Your task to perform on an android device: change notification settings in the gmail app Image 0: 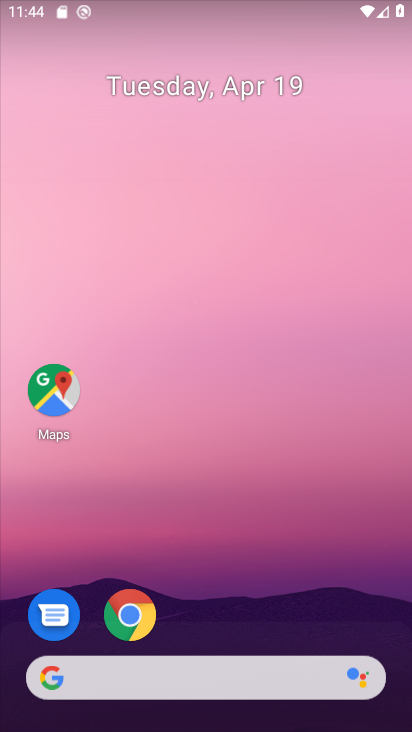
Step 0: drag from (390, 561) to (411, 34)
Your task to perform on an android device: change notification settings in the gmail app Image 1: 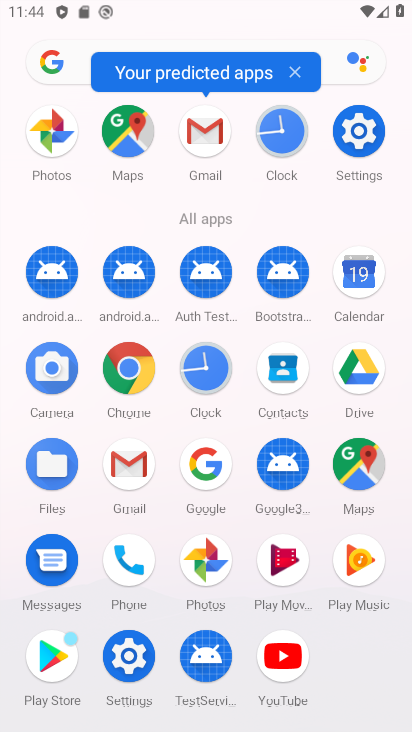
Step 1: click (211, 141)
Your task to perform on an android device: change notification settings in the gmail app Image 2: 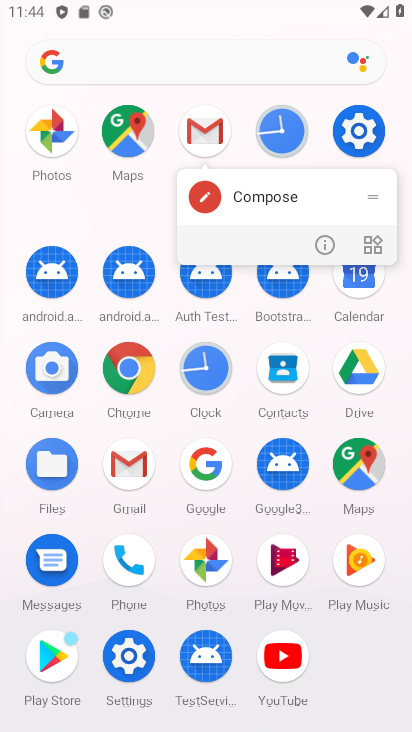
Step 2: click (203, 137)
Your task to perform on an android device: change notification settings in the gmail app Image 3: 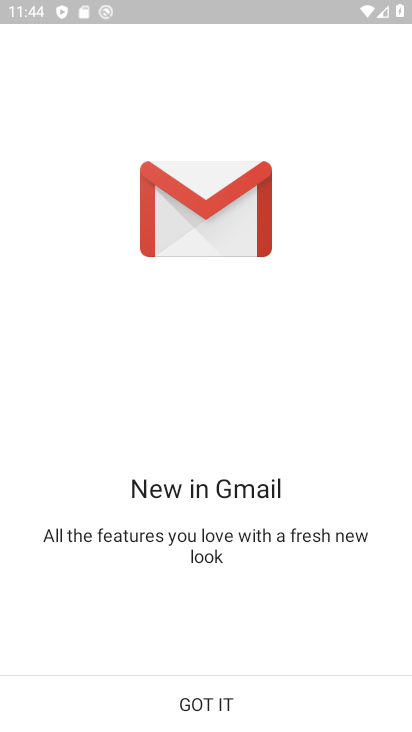
Step 3: click (202, 701)
Your task to perform on an android device: change notification settings in the gmail app Image 4: 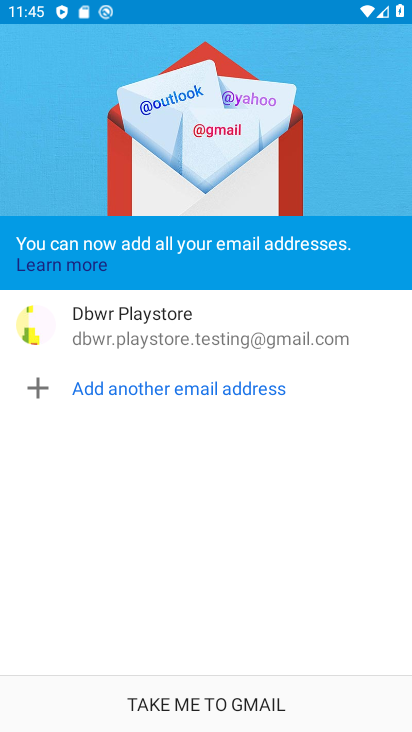
Step 4: click (204, 705)
Your task to perform on an android device: change notification settings in the gmail app Image 5: 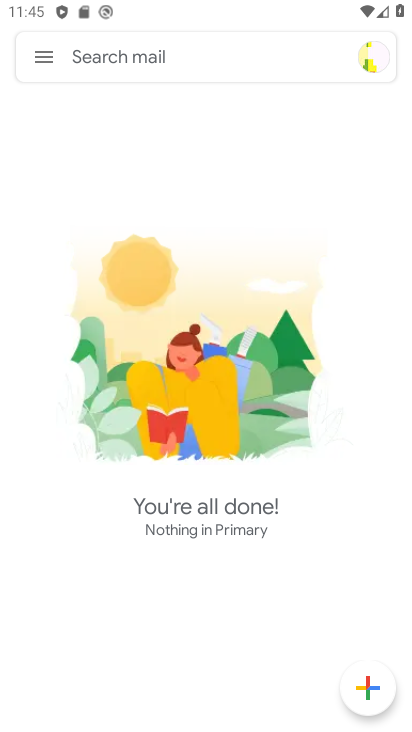
Step 5: click (46, 56)
Your task to perform on an android device: change notification settings in the gmail app Image 6: 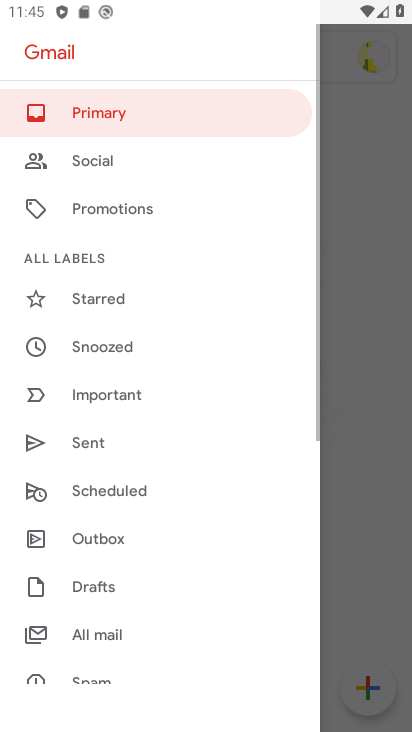
Step 6: drag from (194, 479) to (189, 114)
Your task to perform on an android device: change notification settings in the gmail app Image 7: 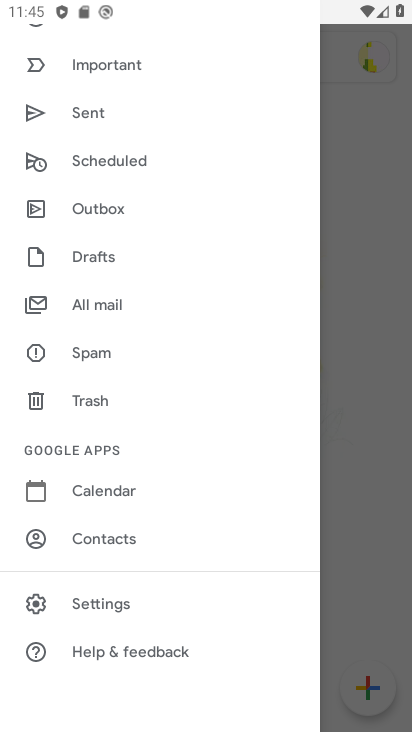
Step 7: click (96, 604)
Your task to perform on an android device: change notification settings in the gmail app Image 8: 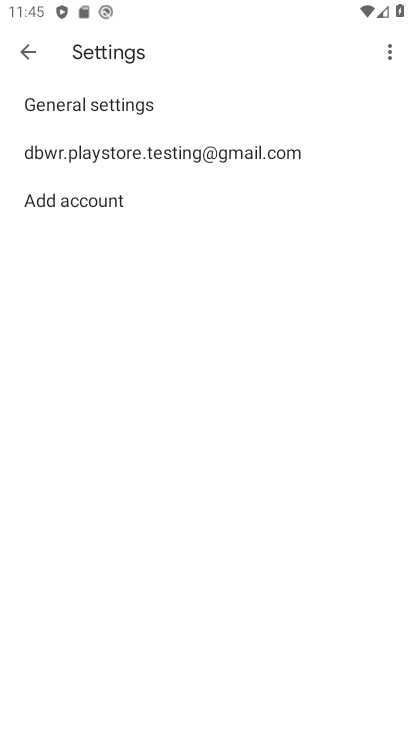
Step 8: click (119, 105)
Your task to perform on an android device: change notification settings in the gmail app Image 9: 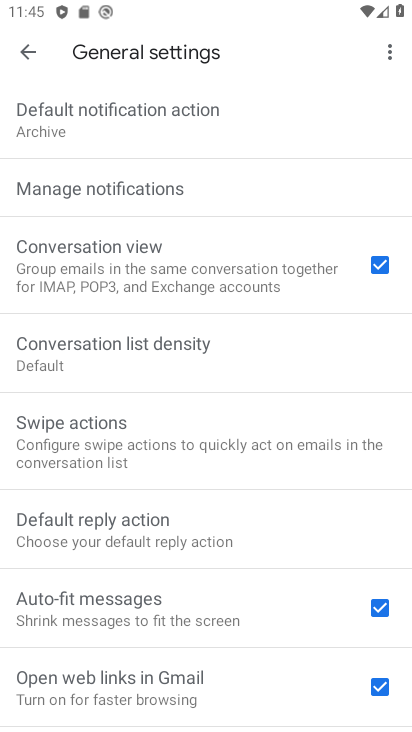
Step 9: click (96, 182)
Your task to perform on an android device: change notification settings in the gmail app Image 10: 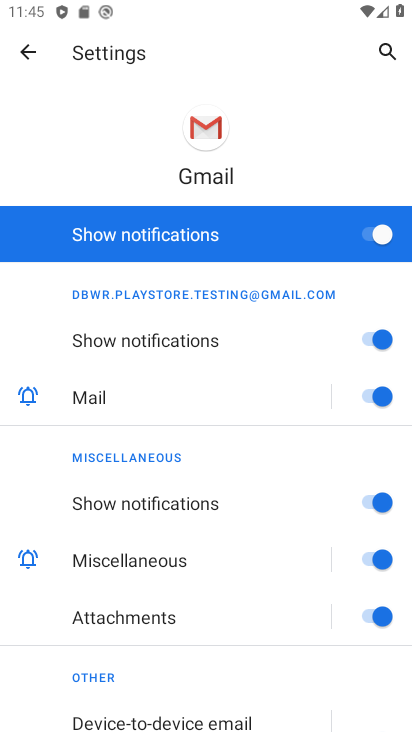
Step 10: click (364, 234)
Your task to perform on an android device: change notification settings in the gmail app Image 11: 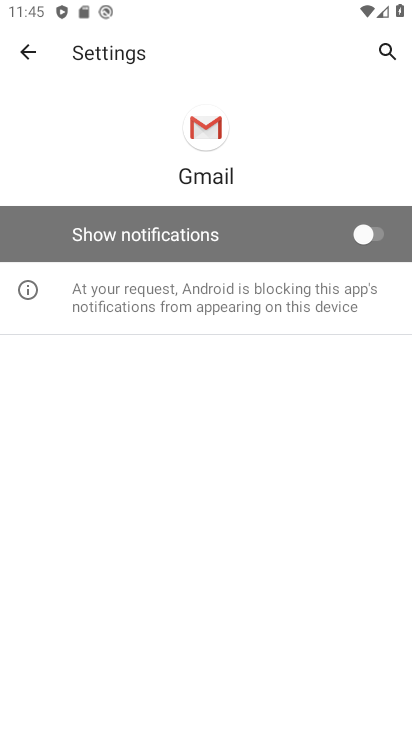
Step 11: task complete